Your task to perform on an android device: change the clock display to show seconds Image 0: 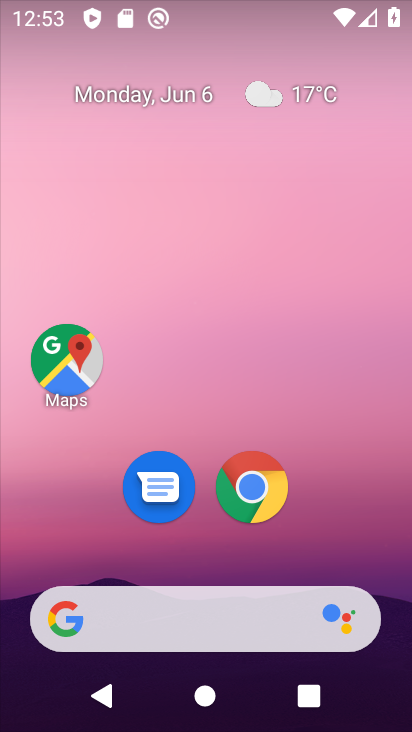
Step 0: drag from (348, 523) to (285, 74)
Your task to perform on an android device: change the clock display to show seconds Image 1: 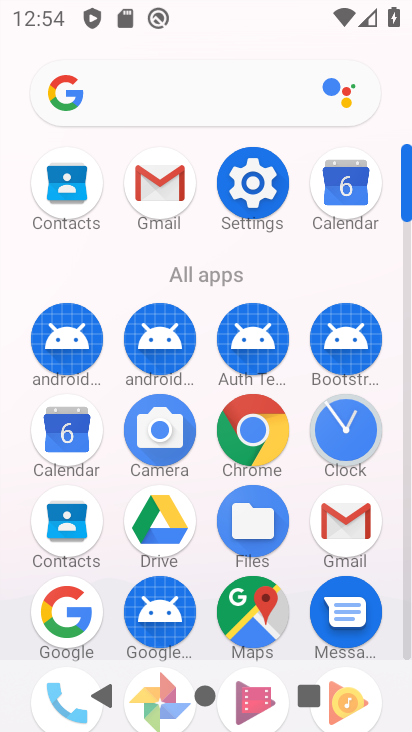
Step 1: click (345, 426)
Your task to perform on an android device: change the clock display to show seconds Image 2: 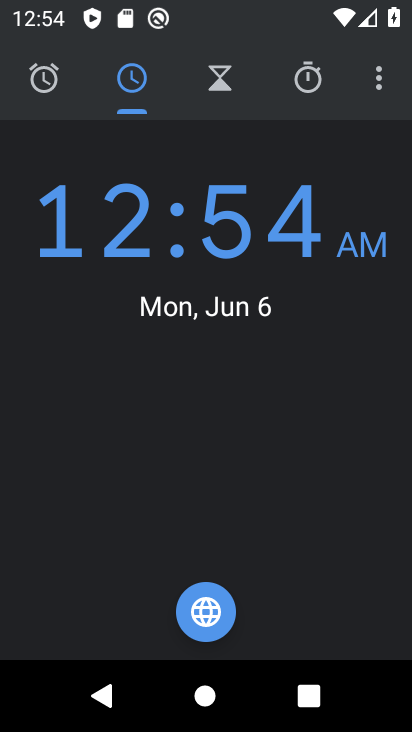
Step 2: click (379, 82)
Your task to perform on an android device: change the clock display to show seconds Image 3: 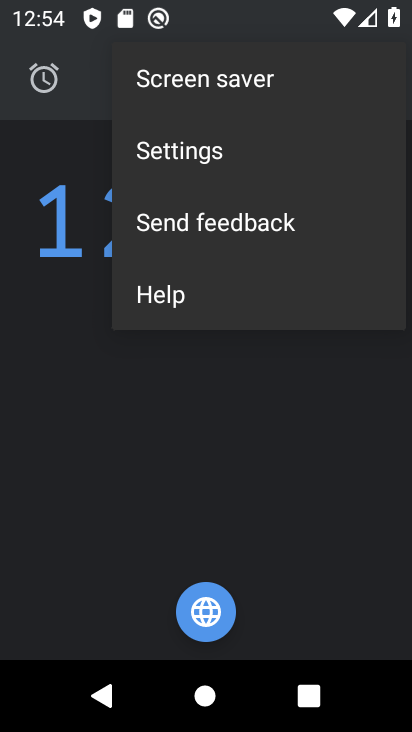
Step 3: click (191, 144)
Your task to perform on an android device: change the clock display to show seconds Image 4: 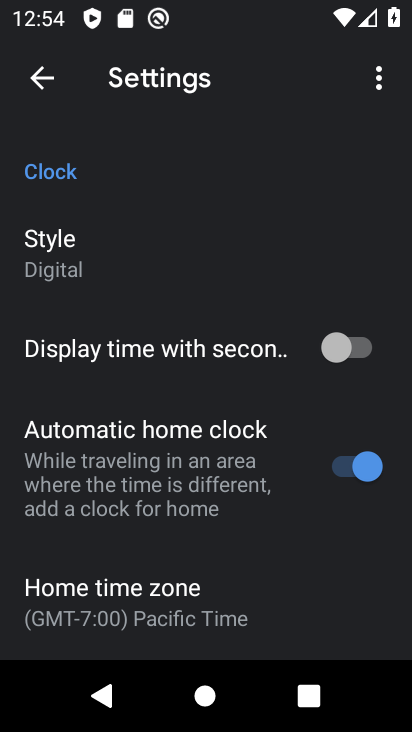
Step 4: click (337, 347)
Your task to perform on an android device: change the clock display to show seconds Image 5: 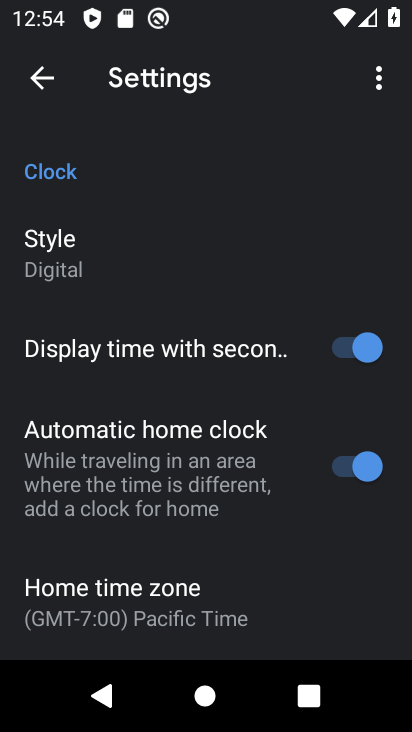
Step 5: task complete